Your task to perform on an android device: Go to location settings Image 0: 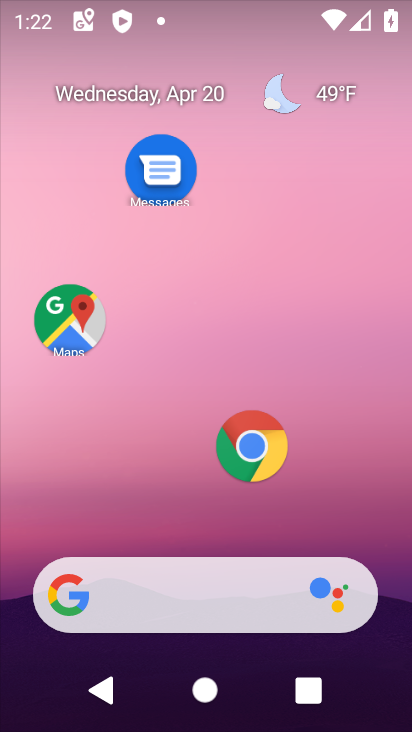
Step 0: drag from (197, 435) to (212, 86)
Your task to perform on an android device: Go to location settings Image 1: 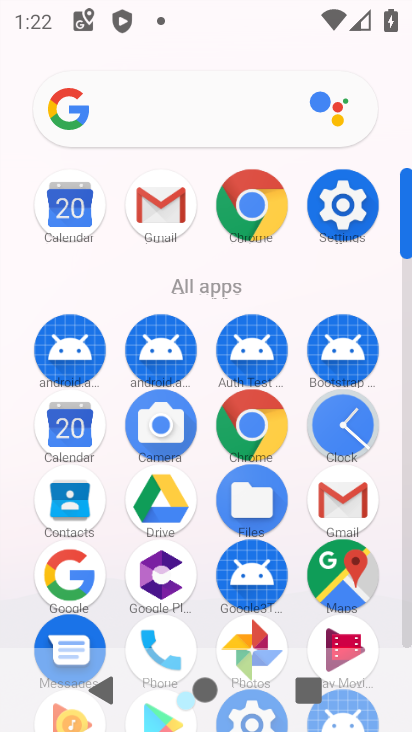
Step 1: click (339, 199)
Your task to perform on an android device: Go to location settings Image 2: 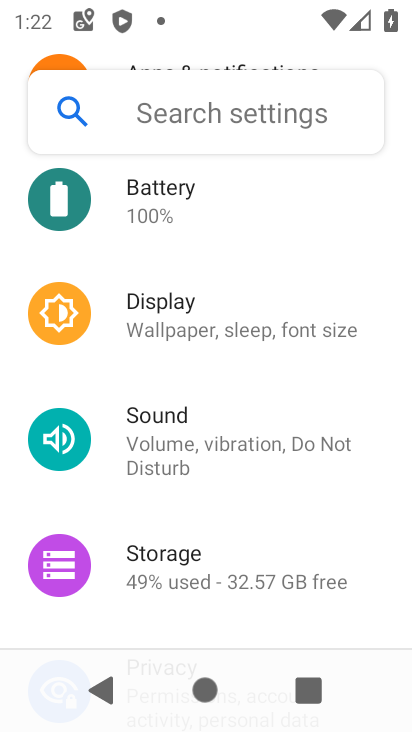
Step 2: drag from (210, 552) to (210, 143)
Your task to perform on an android device: Go to location settings Image 3: 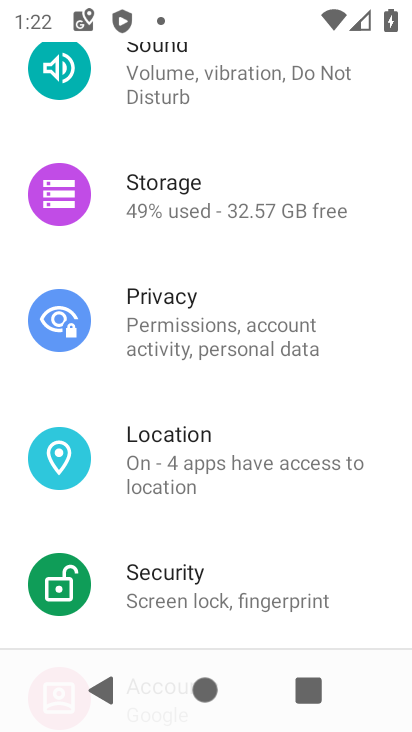
Step 3: click (224, 441)
Your task to perform on an android device: Go to location settings Image 4: 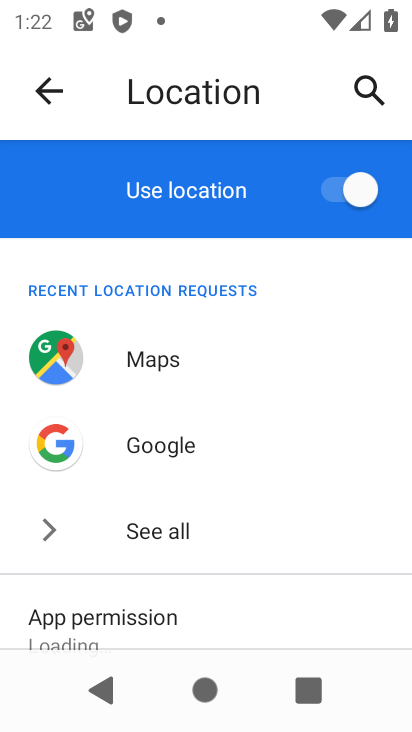
Step 4: drag from (197, 574) to (198, 237)
Your task to perform on an android device: Go to location settings Image 5: 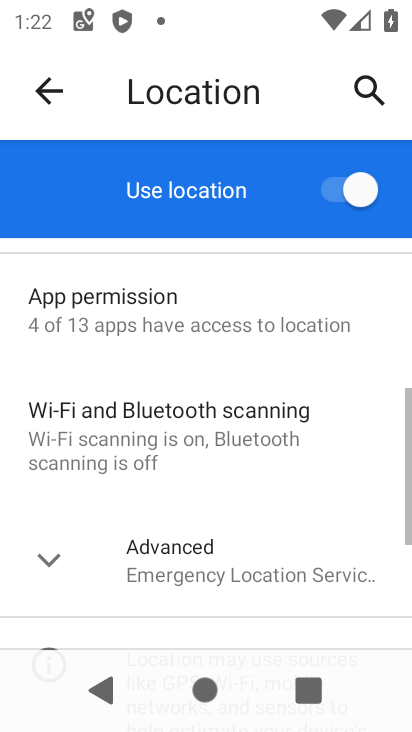
Step 5: click (48, 555)
Your task to perform on an android device: Go to location settings Image 6: 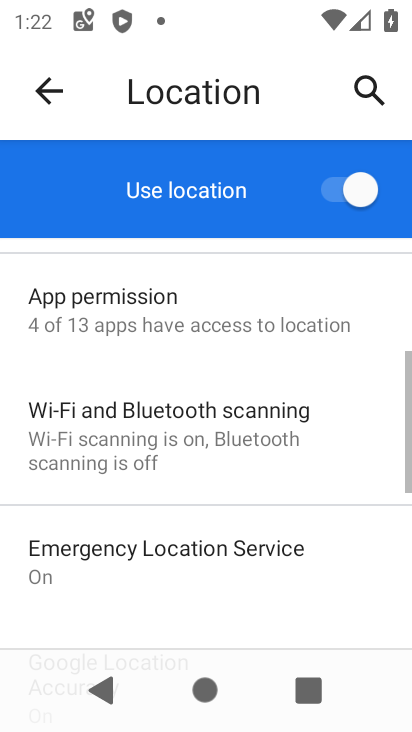
Step 6: task complete